Your task to perform on an android device: What's the weather going to be tomorrow? Image 0: 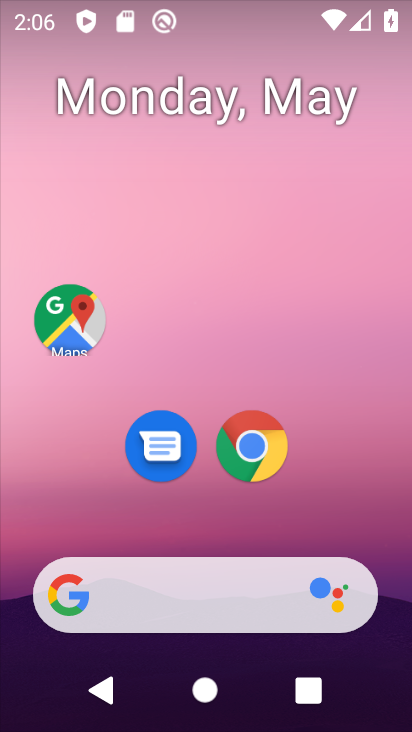
Step 0: drag from (354, 510) to (359, 168)
Your task to perform on an android device: What's the weather going to be tomorrow? Image 1: 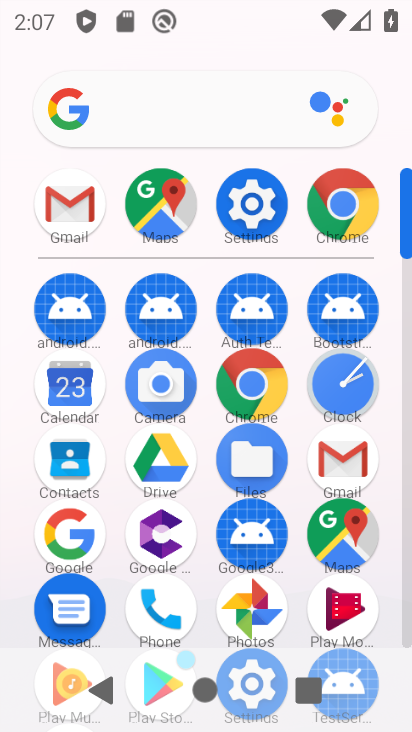
Step 1: click (267, 390)
Your task to perform on an android device: What's the weather going to be tomorrow? Image 2: 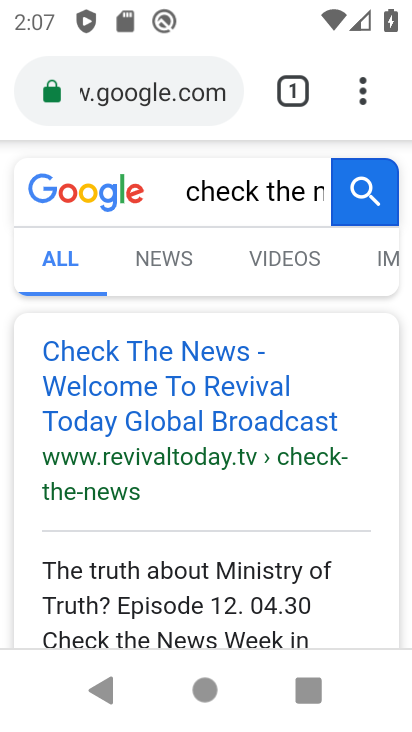
Step 2: click (159, 98)
Your task to perform on an android device: What's the weather going to be tomorrow? Image 3: 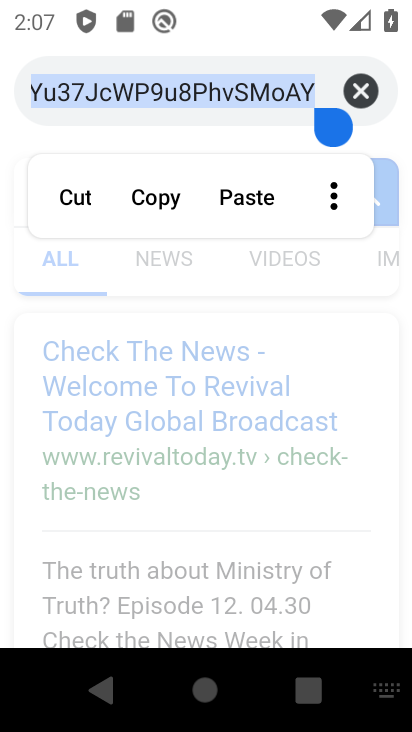
Step 3: click (356, 89)
Your task to perform on an android device: What's the weather going to be tomorrow? Image 4: 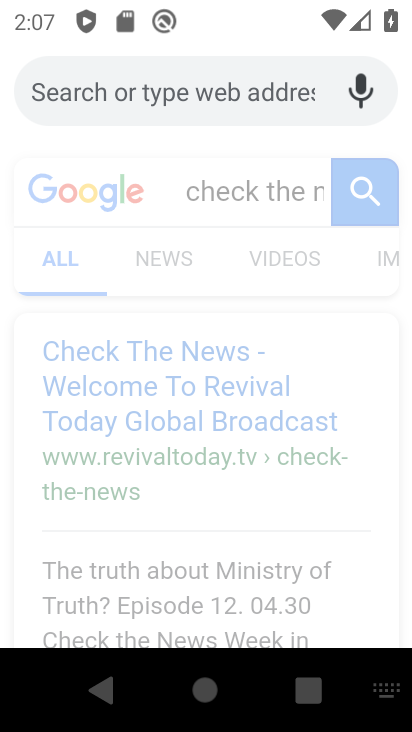
Step 4: type "what's the weather going to be tomorrow"
Your task to perform on an android device: What's the weather going to be tomorrow? Image 5: 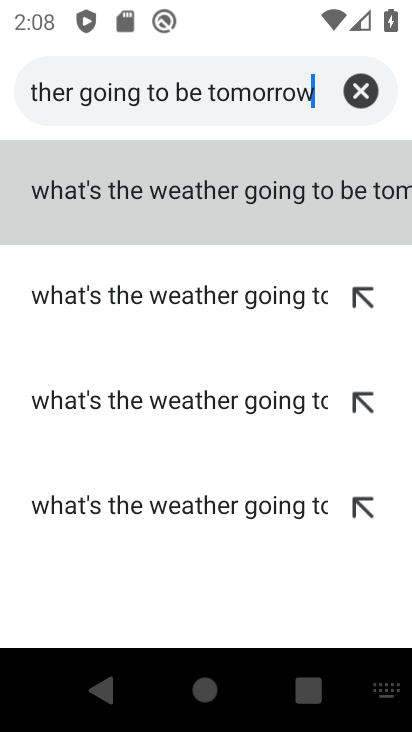
Step 5: click (169, 196)
Your task to perform on an android device: What's the weather going to be tomorrow? Image 6: 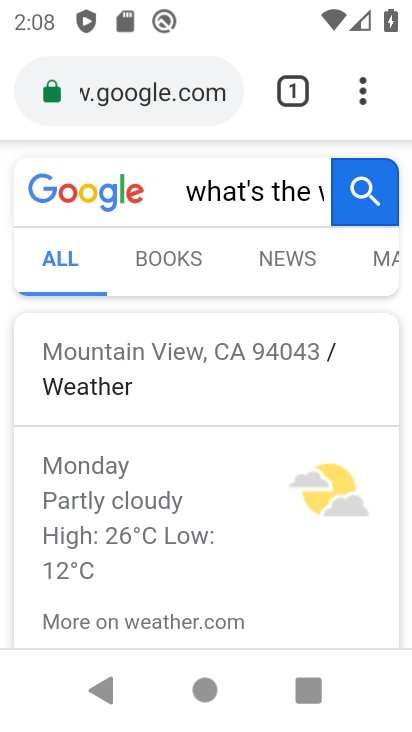
Step 6: task complete